Your task to perform on an android device: turn on translation in the chrome app Image 0: 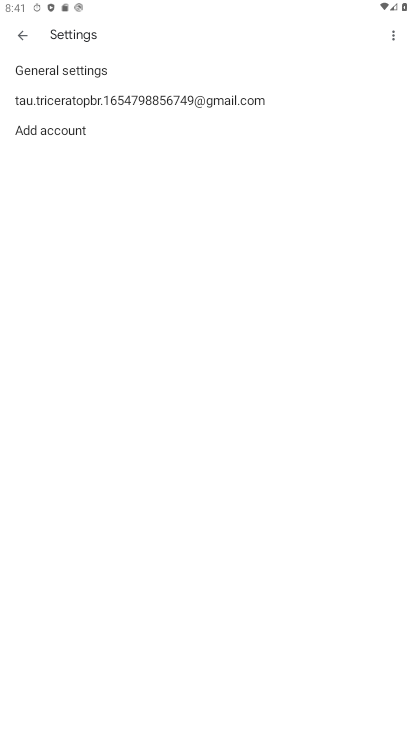
Step 0: press home button
Your task to perform on an android device: turn on translation in the chrome app Image 1: 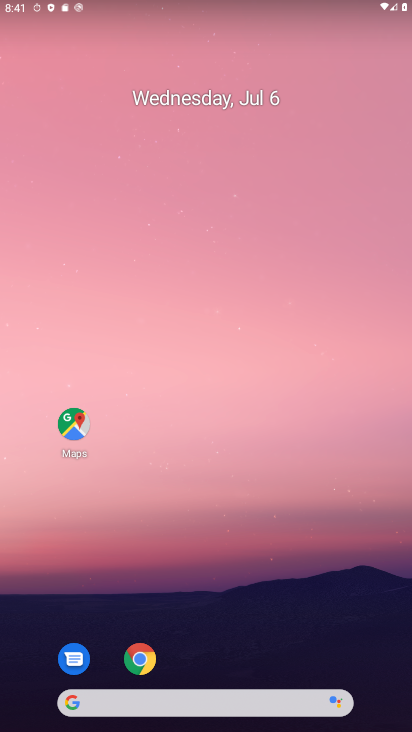
Step 1: drag from (311, 629) to (347, 252)
Your task to perform on an android device: turn on translation in the chrome app Image 2: 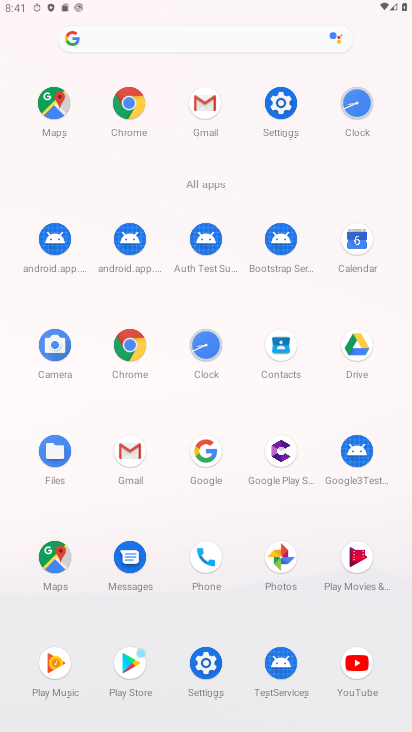
Step 2: click (140, 351)
Your task to perform on an android device: turn on translation in the chrome app Image 3: 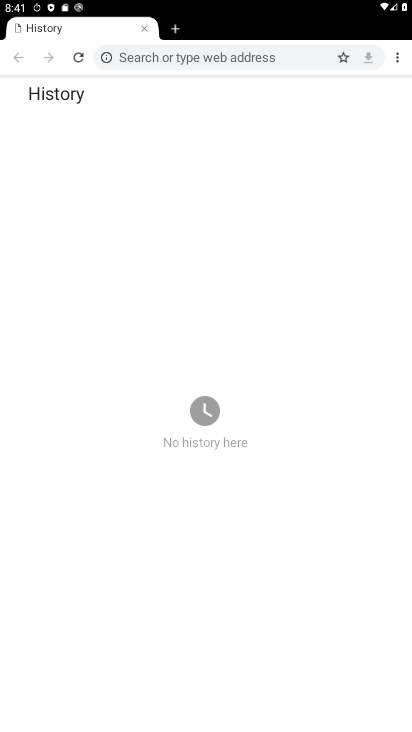
Step 3: click (394, 60)
Your task to perform on an android device: turn on translation in the chrome app Image 4: 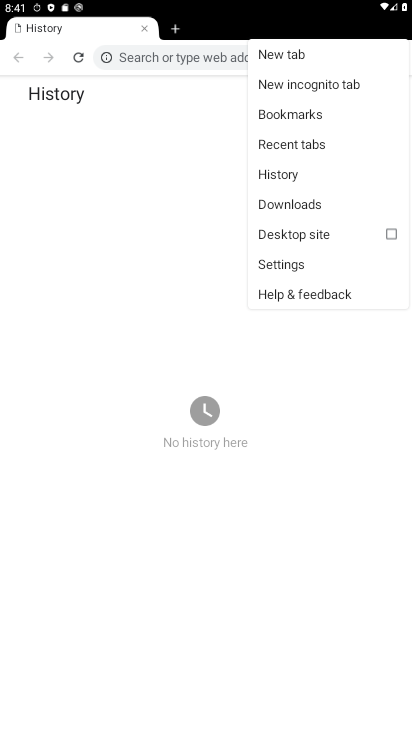
Step 4: click (304, 264)
Your task to perform on an android device: turn on translation in the chrome app Image 5: 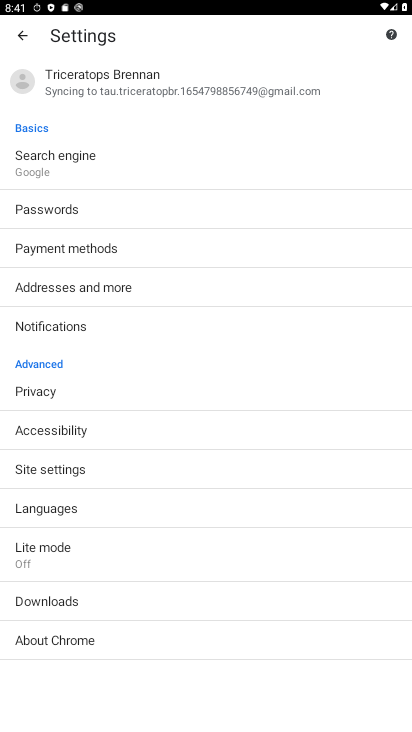
Step 5: drag from (278, 414) to (286, 303)
Your task to perform on an android device: turn on translation in the chrome app Image 6: 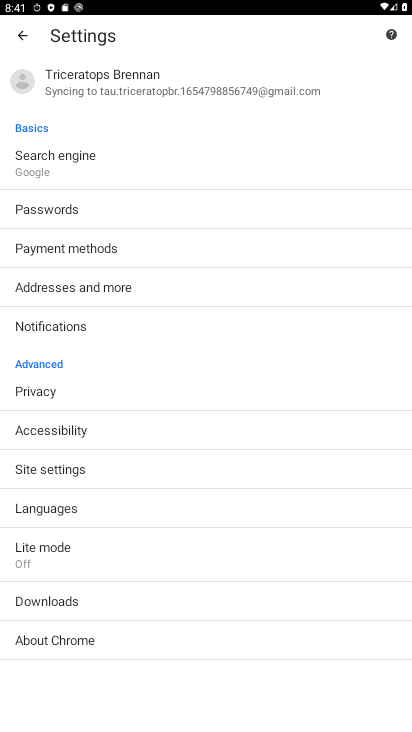
Step 6: click (177, 507)
Your task to perform on an android device: turn on translation in the chrome app Image 7: 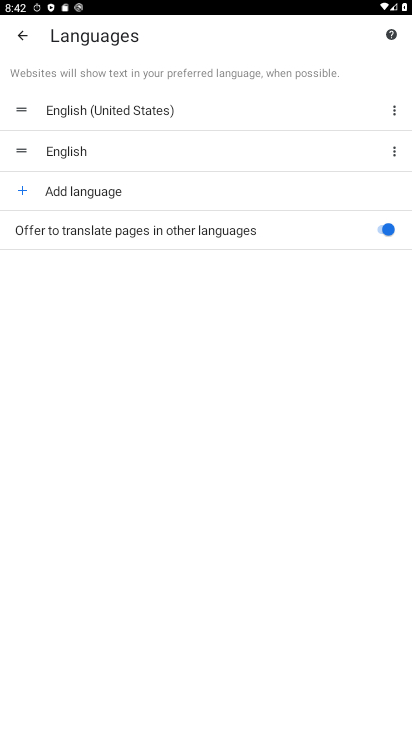
Step 7: task complete